Your task to perform on an android device: Open settings on Google Maps Image 0: 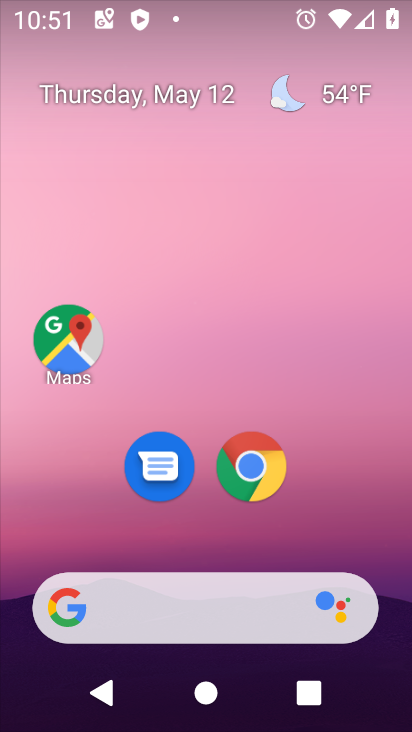
Step 0: drag from (335, 530) to (365, 155)
Your task to perform on an android device: Open settings on Google Maps Image 1: 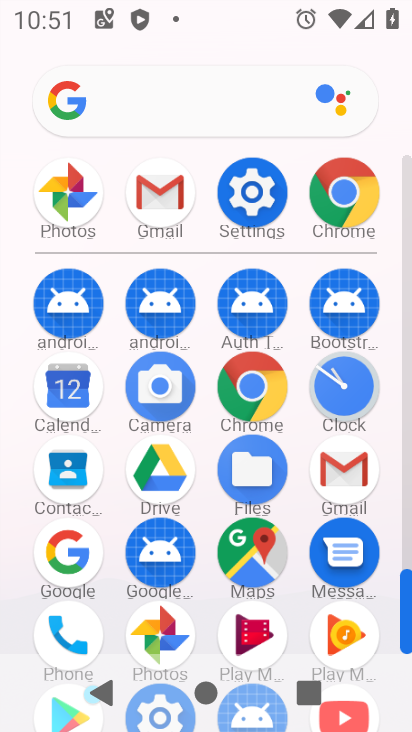
Step 1: drag from (293, 587) to (318, 296)
Your task to perform on an android device: Open settings on Google Maps Image 2: 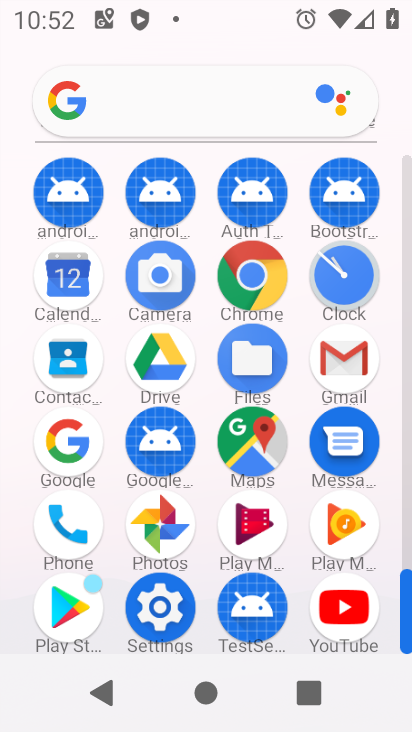
Step 2: click (257, 445)
Your task to perform on an android device: Open settings on Google Maps Image 3: 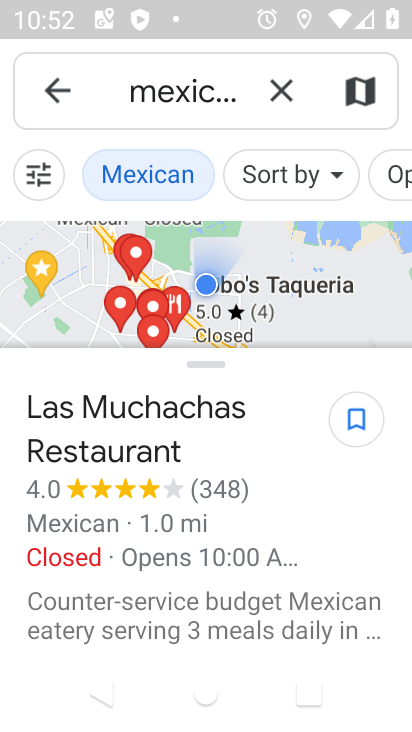
Step 3: click (50, 91)
Your task to perform on an android device: Open settings on Google Maps Image 4: 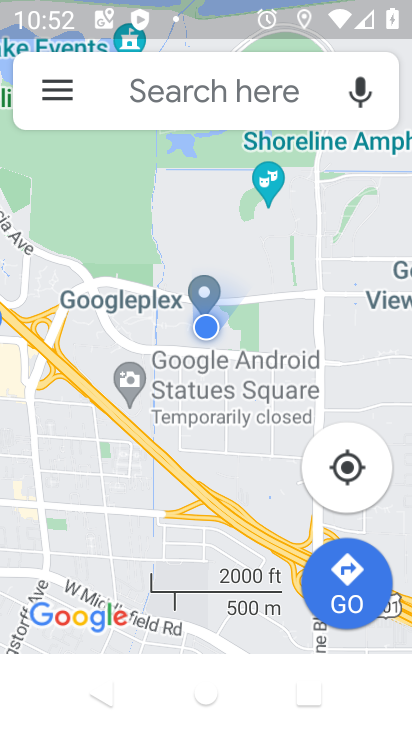
Step 4: click (51, 89)
Your task to perform on an android device: Open settings on Google Maps Image 5: 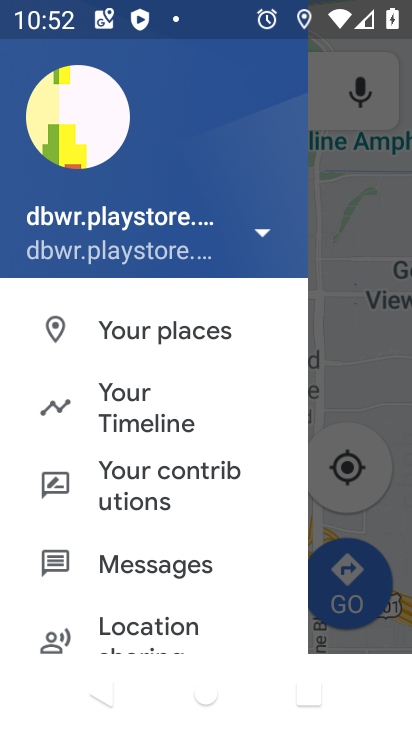
Step 5: click (181, 409)
Your task to perform on an android device: Open settings on Google Maps Image 6: 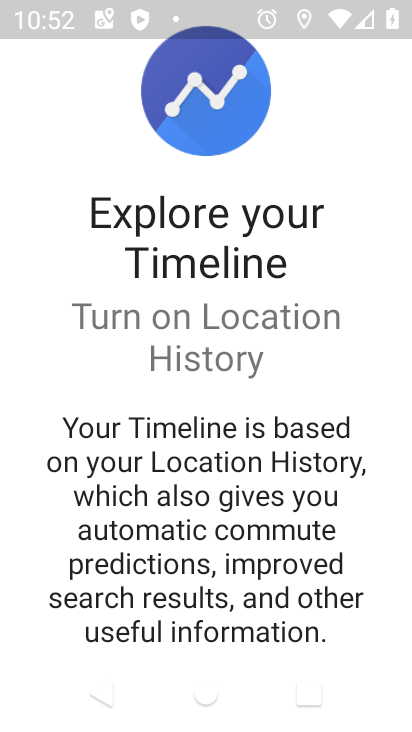
Step 6: drag from (269, 653) to (305, 317)
Your task to perform on an android device: Open settings on Google Maps Image 7: 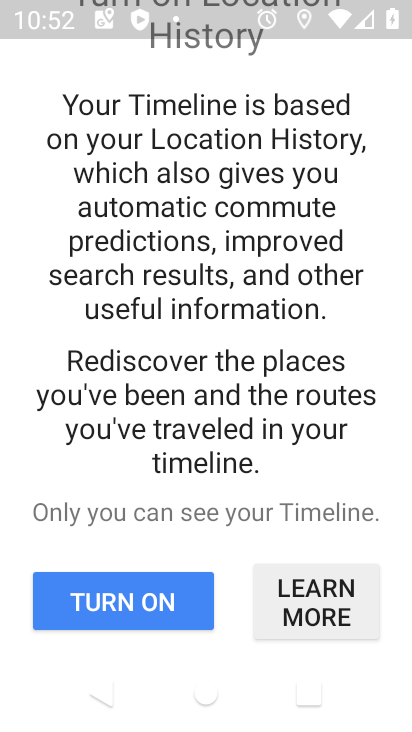
Step 7: drag from (259, 433) to (297, 315)
Your task to perform on an android device: Open settings on Google Maps Image 8: 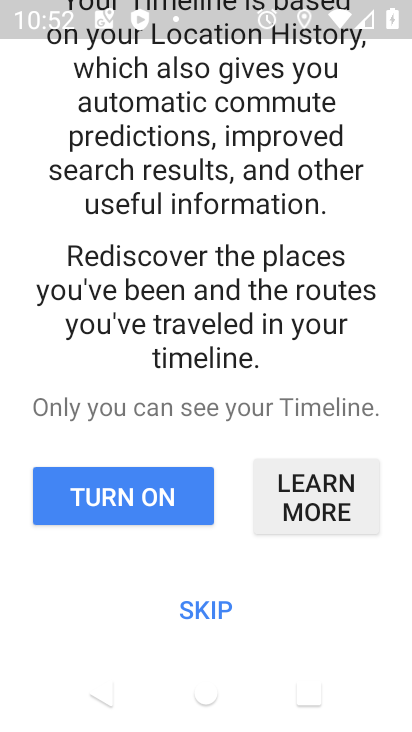
Step 8: click (213, 613)
Your task to perform on an android device: Open settings on Google Maps Image 9: 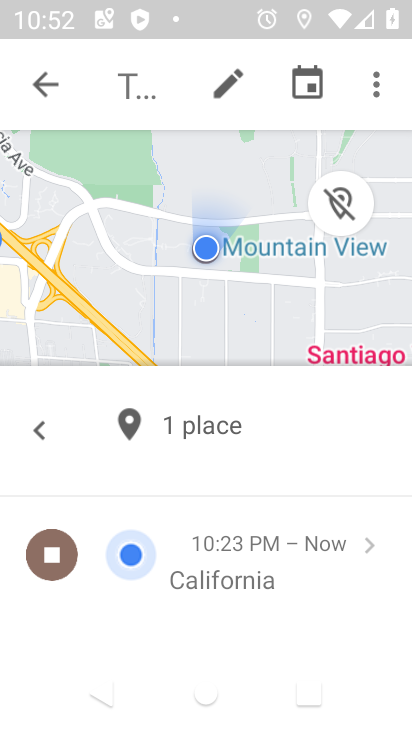
Step 9: click (371, 93)
Your task to perform on an android device: Open settings on Google Maps Image 10: 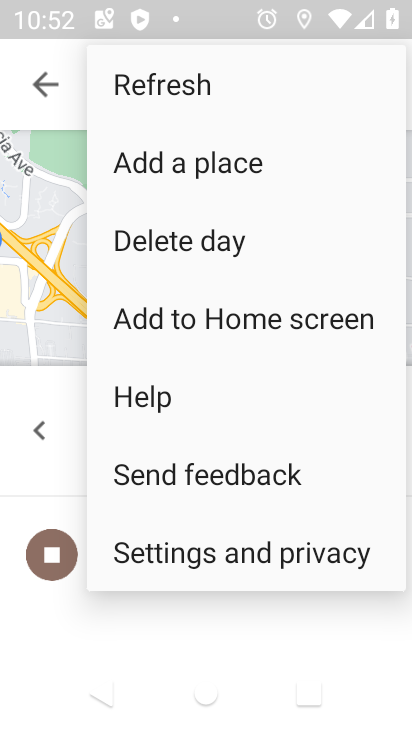
Step 10: click (228, 560)
Your task to perform on an android device: Open settings on Google Maps Image 11: 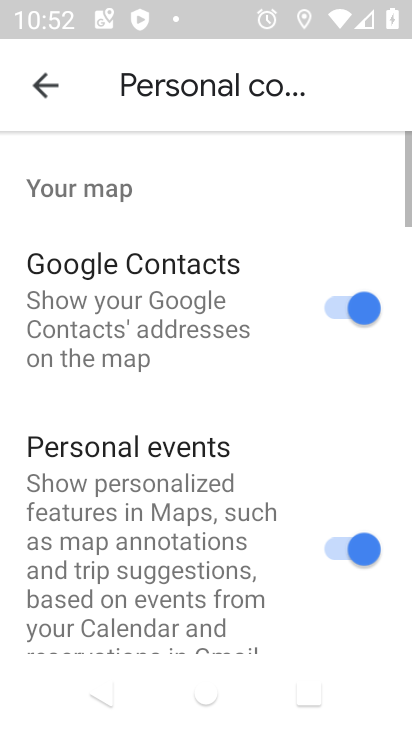
Step 11: task complete